Your task to perform on an android device: Go to eBay Image 0: 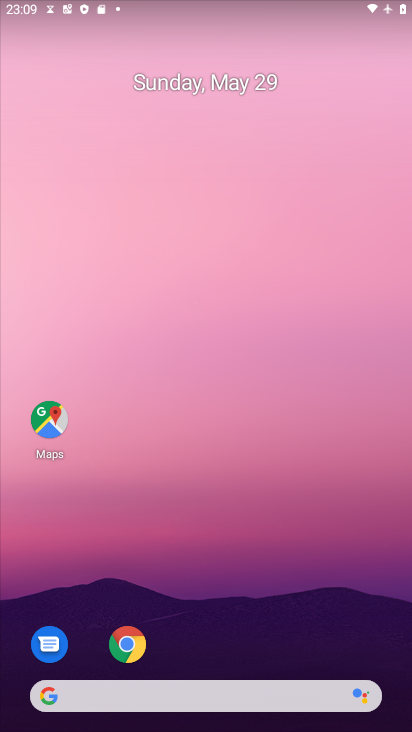
Step 0: click (137, 642)
Your task to perform on an android device: Go to eBay Image 1: 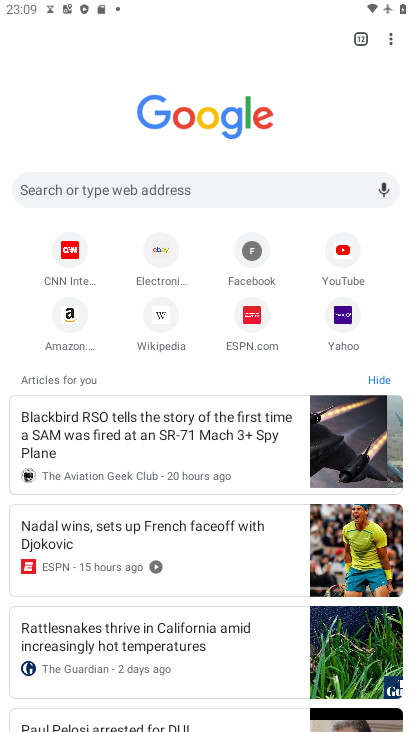
Step 1: click (148, 244)
Your task to perform on an android device: Go to eBay Image 2: 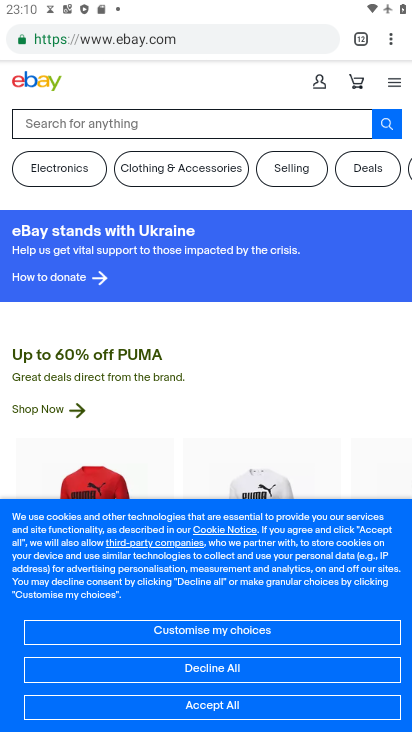
Step 2: task complete